Your task to perform on an android device: make emails show in primary in the gmail app Image 0: 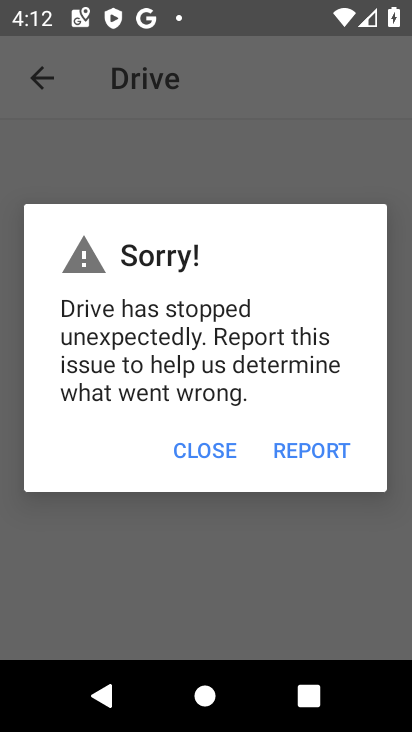
Step 0: press home button
Your task to perform on an android device: make emails show in primary in the gmail app Image 1: 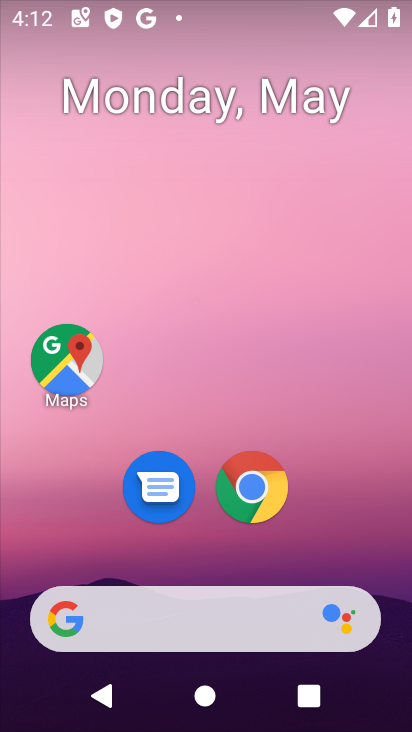
Step 1: drag from (353, 580) to (381, 25)
Your task to perform on an android device: make emails show in primary in the gmail app Image 2: 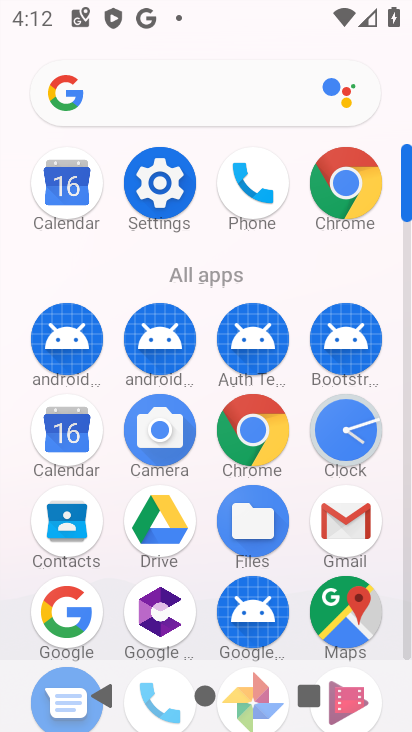
Step 2: click (356, 534)
Your task to perform on an android device: make emails show in primary in the gmail app Image 3: 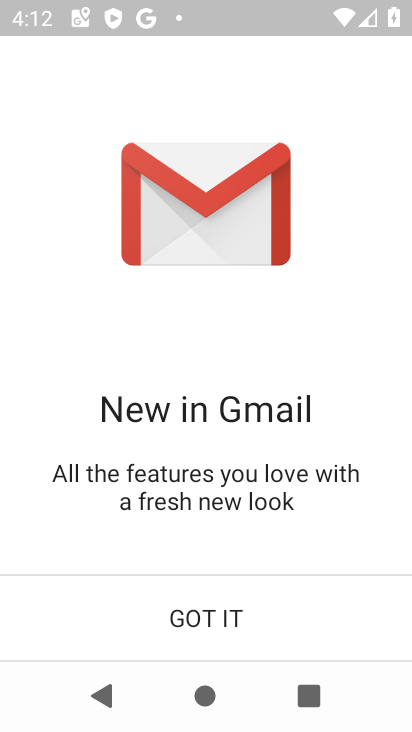
Step 3: click (232, 605)
Your task to perform on an android device: make emails show in primary in the gmail app Image 4: 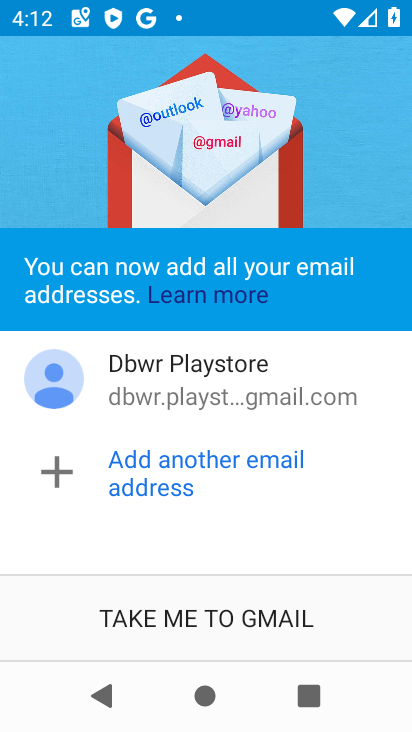
Step 4: click (211, 616)
Your task to perform on an android device: make emails show in primary in the gmail app Image 5: 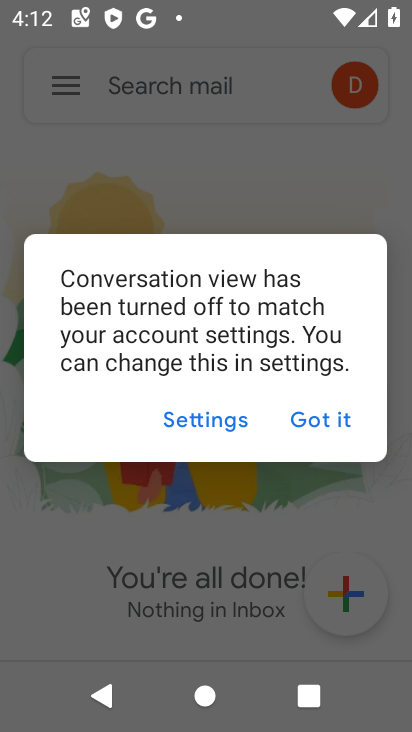
Step 5: click (310, 418)
Your task to perform on an android device: make emails show in primary in the gmail app Image 6: 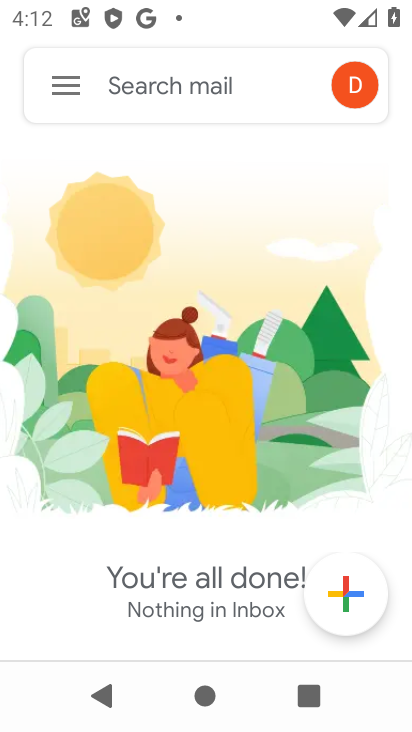
Step 6: click (60, 93)
Your task to perform on an android device: make emails show in primary in the gmail app Image 7: 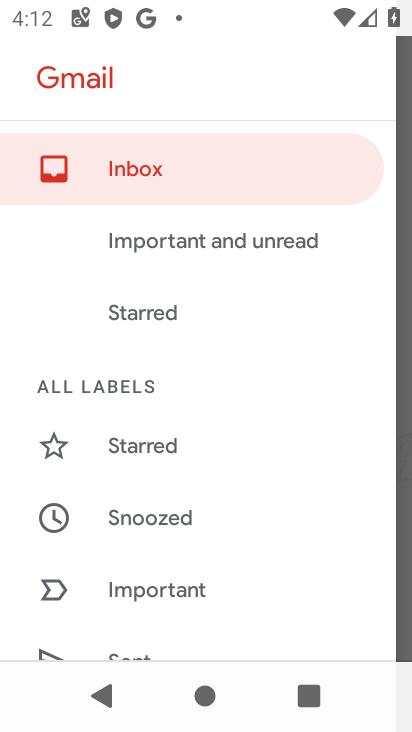
Step 7: drag from (219, 474) to (205, 138)
Your task to perform on an android device: make emails show in primary in the gmail app Image 8: 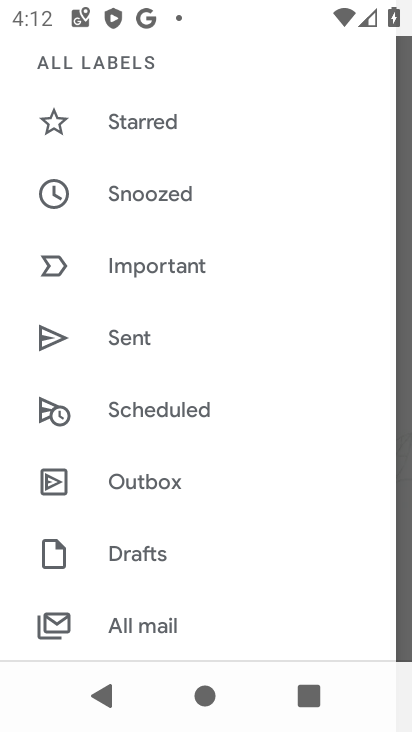
Step 8: drag from (201, 401) to (189, 58)
Your task to perform on an android device: make emails show in primary in the gmail app Image 9: 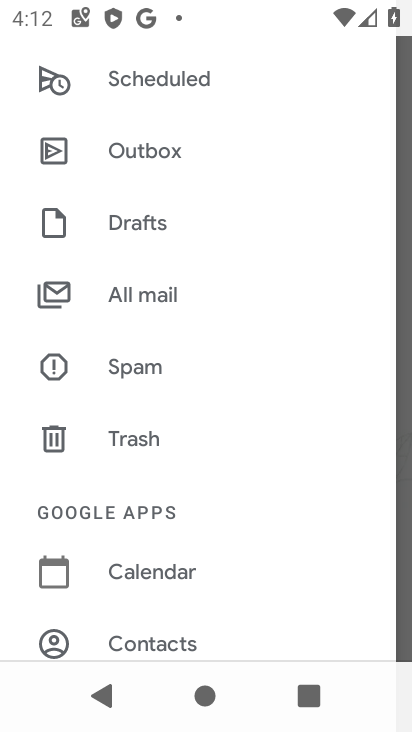
Step 9: drag from (190, 423) to (153, 88)
Your task to perform on an android device: make emails show in primary in the gmail app Image 10: 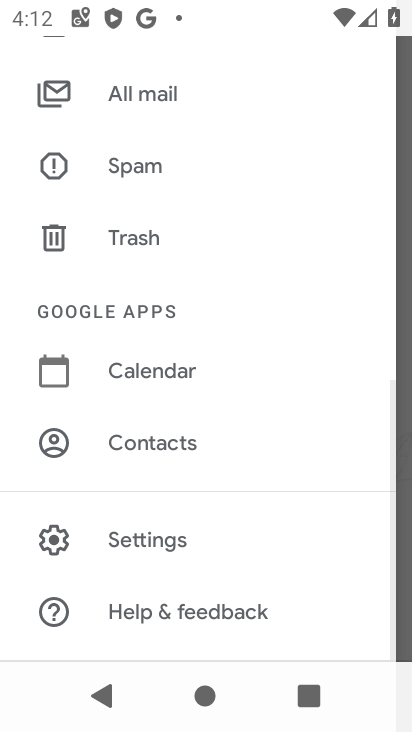
Step 10: click (116, 531)
Your task to perform on an android device: make emails show in primary in the gmail app Image 11: 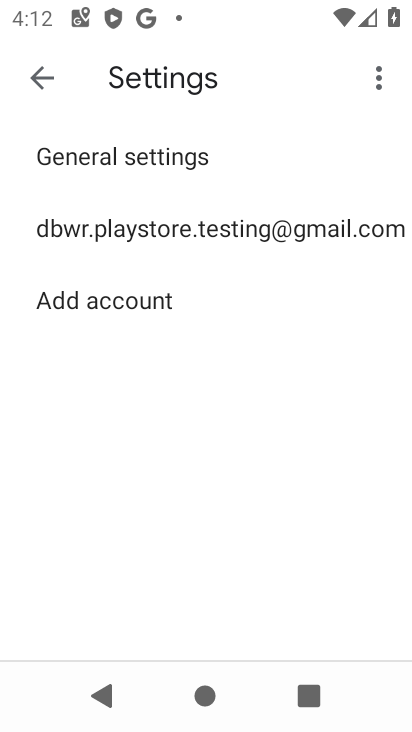
Step 11: click (137, 228)
Your task to perform on an android device: make emails show in primary in the gmail app Image 12: 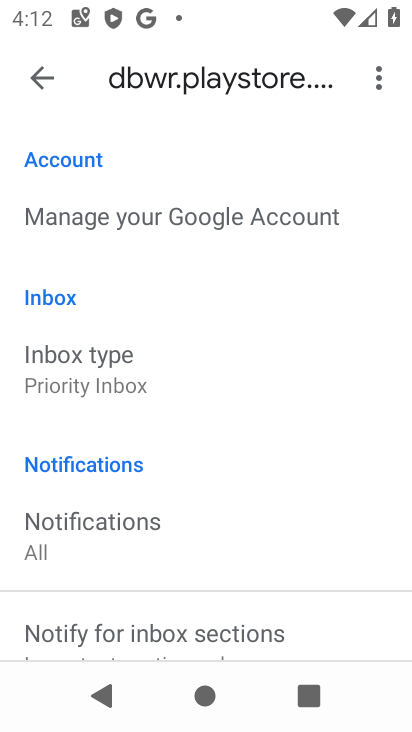
Step 12: task complete